Your task to perform on an android device: change keyboard looks Image 0: 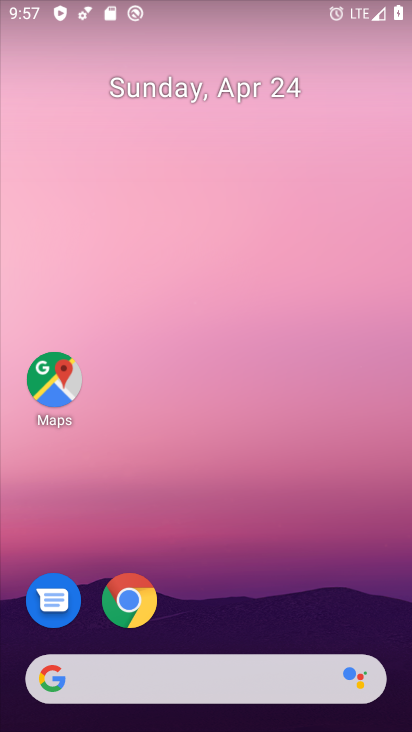
Step 0: drag from (218, 639) to (265, 127)
Your task to perform on an android device: change keyboard looks Image 1: 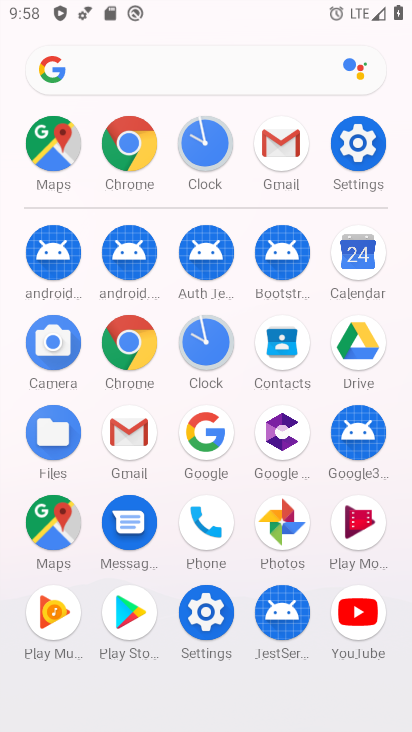
Step 1: click (350, 154)
Your task to perform on an android device: change keyboard looks Image 2: 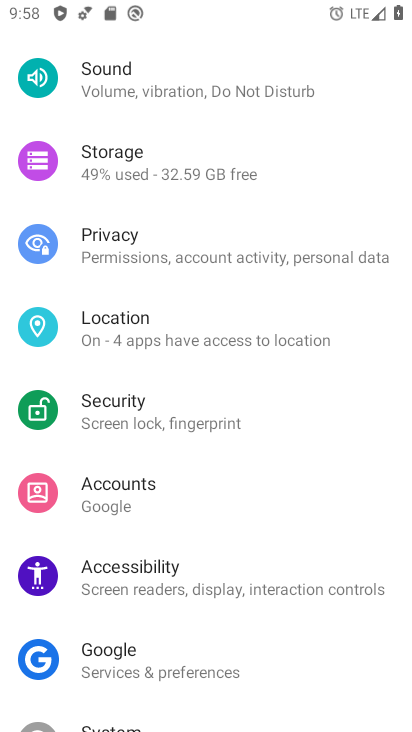
Step 2: drag from (213, 261) to (149, 639)
Your task to perform on an android device: change keyboard looks Image 3: 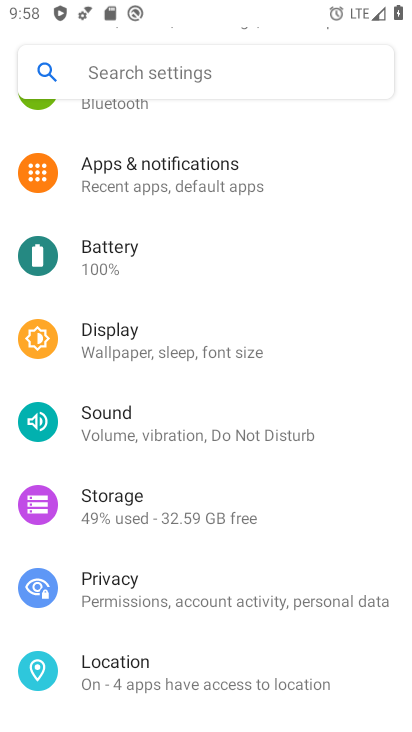
Step 3: drag from (117, 562) to (186, 201)
Your task to perform on an android device: change keyboard looks Image 4: 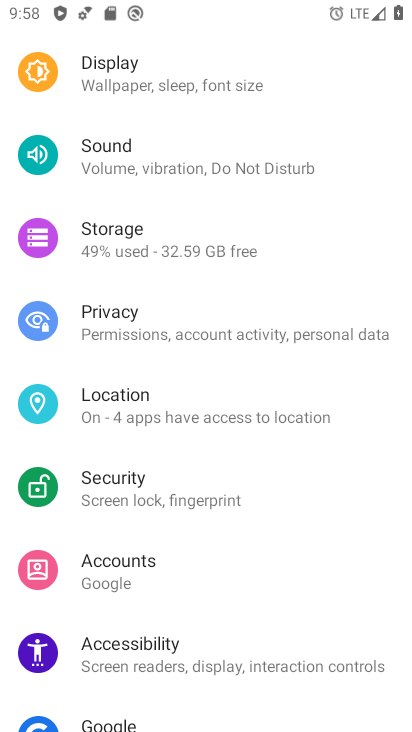
Step 4: drag from (144, 652) to (209, 224)
Your task to perform on an android device: change keyboard looks Image 5: 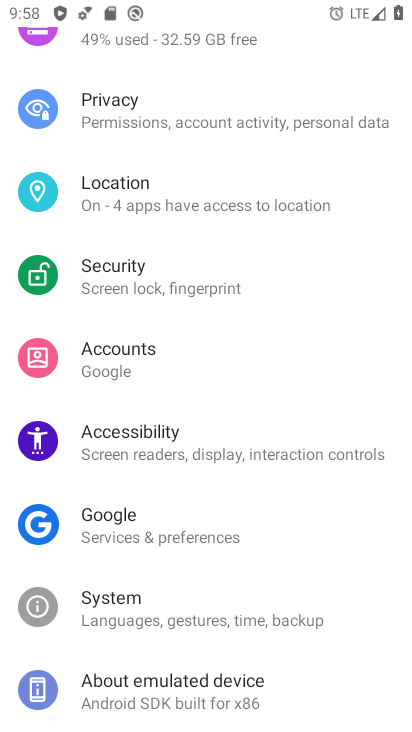
Step 5: click (120, 620)
Your task to perform on an android device: change keyboard looks Image 6: 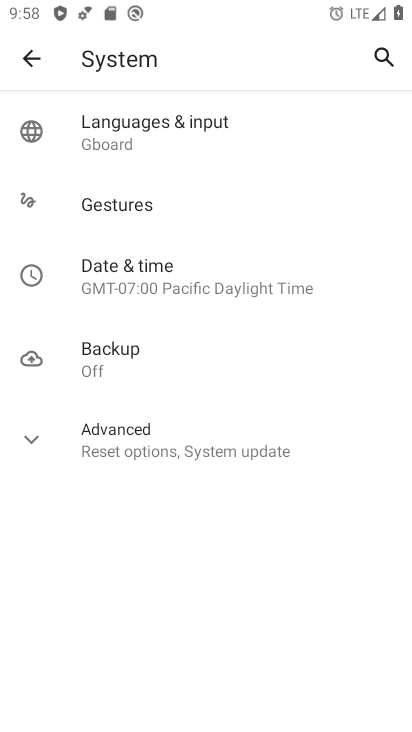
Step 6: click (153, 138)
Your task to perform on an android device: change keyboard looks Image 7: 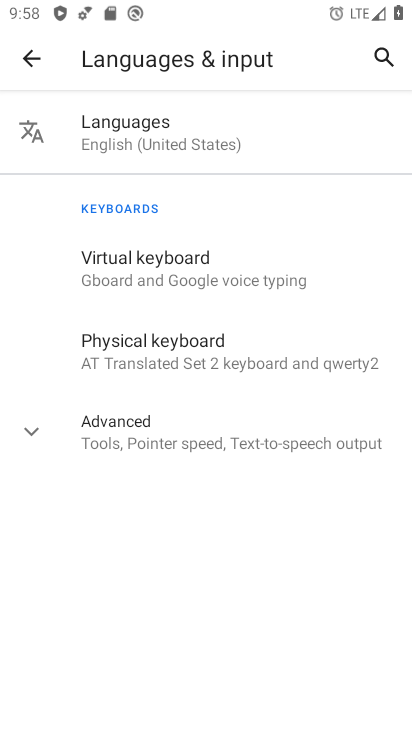
Step 7: click (151, 278)
Your task to perform on an android device: change keyboard looks Image 8: 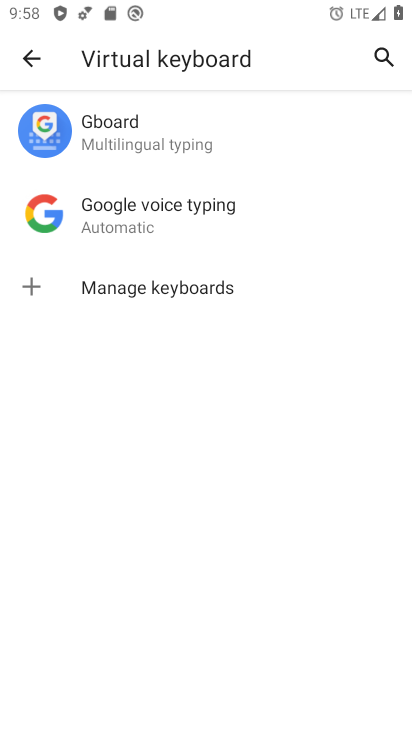
Step 8: click (134, 149)
Your task to perform on an android device: change keyboard looks Image 9: 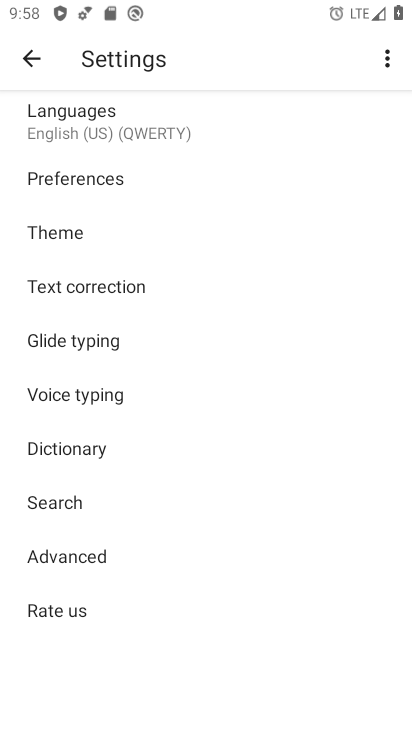
Step 9: click (54, 239)
Your task to perform on an android device: change keyboard looks Image 10: 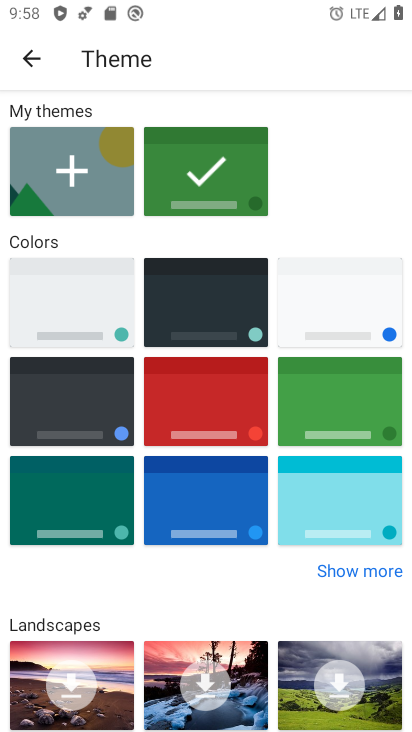
Step 10: click (196, 392)
Your task to perform on an android device: change keyboard looks Image 11: 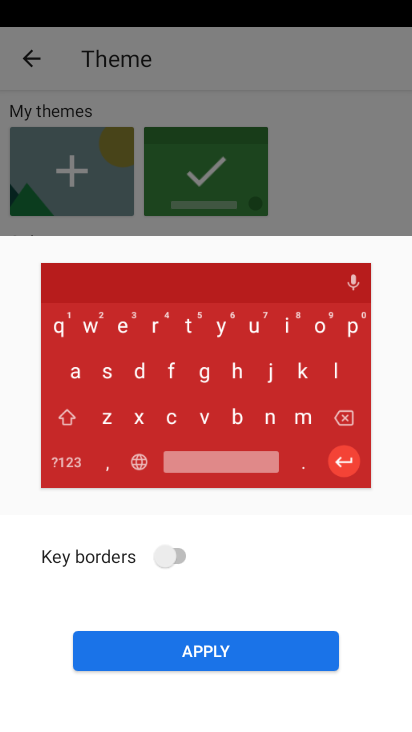
Step 11: click (221, 649)
Your task to perform on an android device: change keyboard looks Image 12: 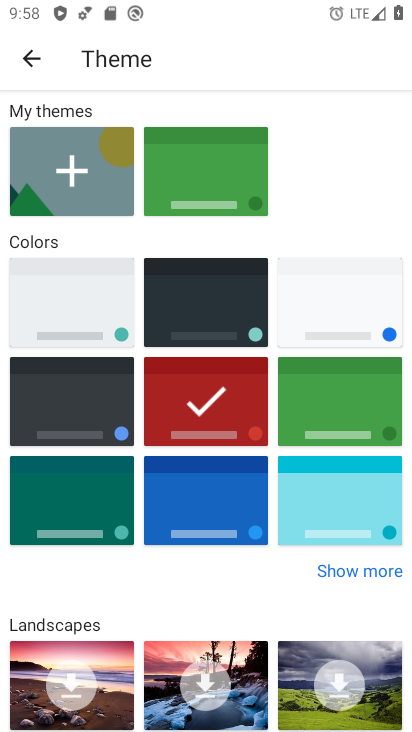
Step 12: task complete